Your task to perform on an android device: check battery use Image 0: 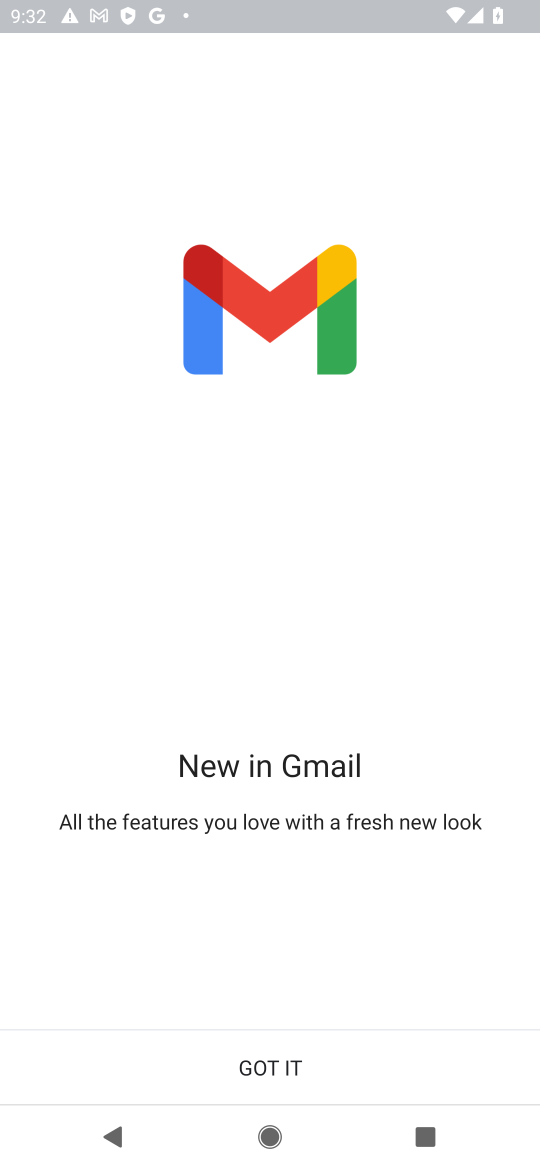
Step 0: press home button
Your task to perform on an android device: check battery use Image 1: 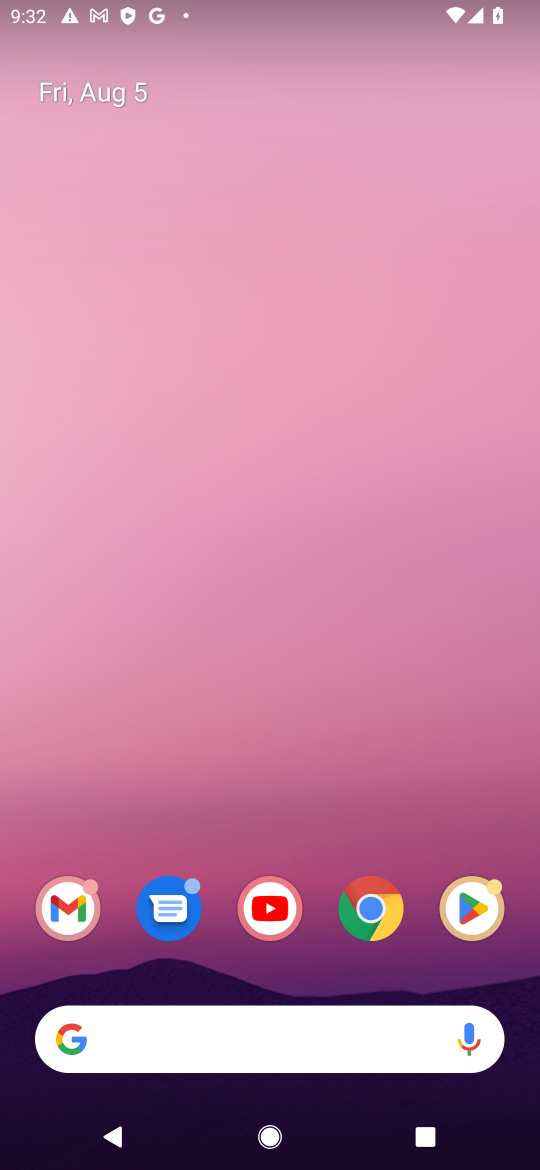
Step 1: drag from (265, 822) to (314, 6)
Your task to perform on an android device: check battery use Image 2: 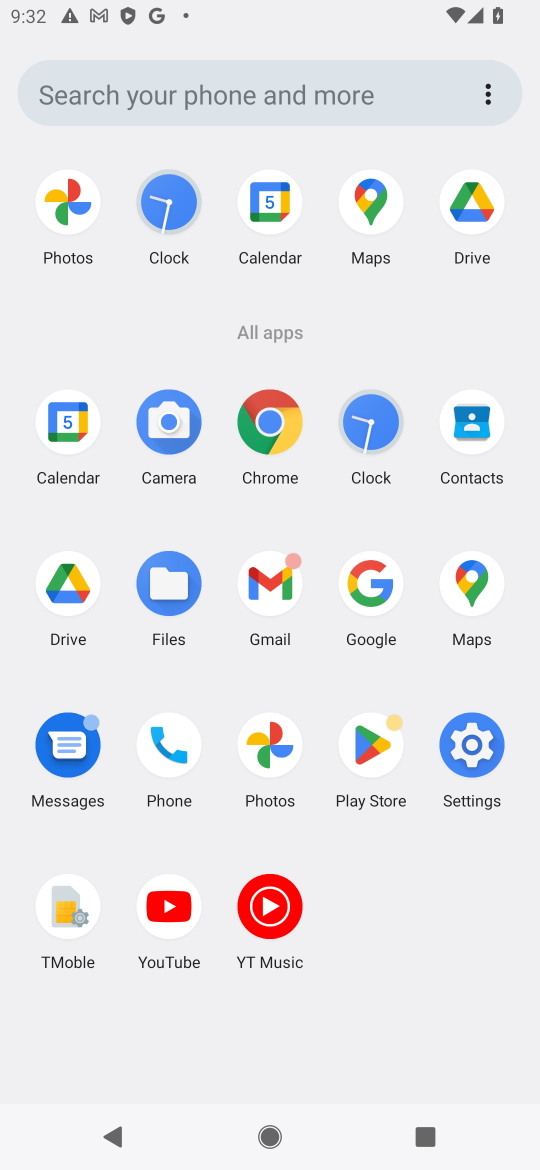
Step 2: click (473, 744)
Your task to perform on an android device: check battery use Image 3: 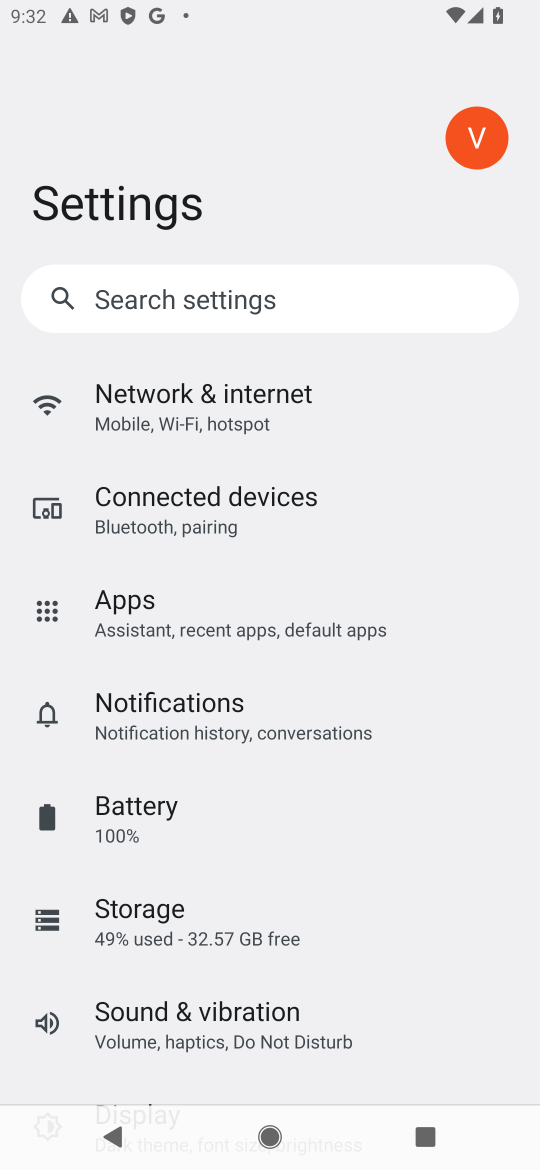
Step 3: click (133, 803)
Your task to perform on an android device: check battery use Image 4: 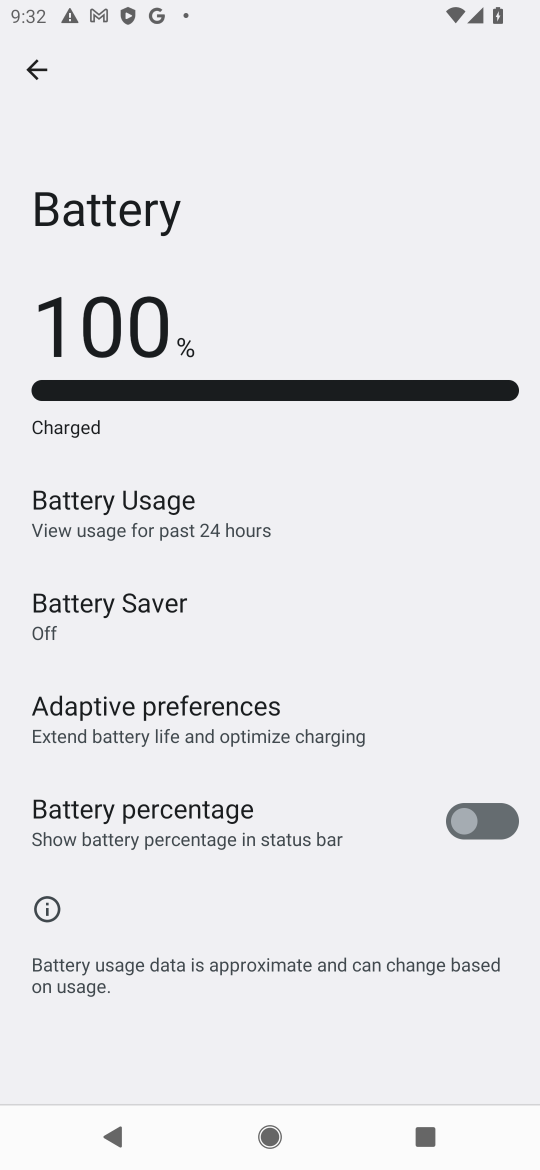
Step 4: task complete